Your task to perform on an android device: Clear the cart on target.com. Search for macbook pro 15 inch on target.com, select the first entry, add it to the cart, then select checkout. Image 0: 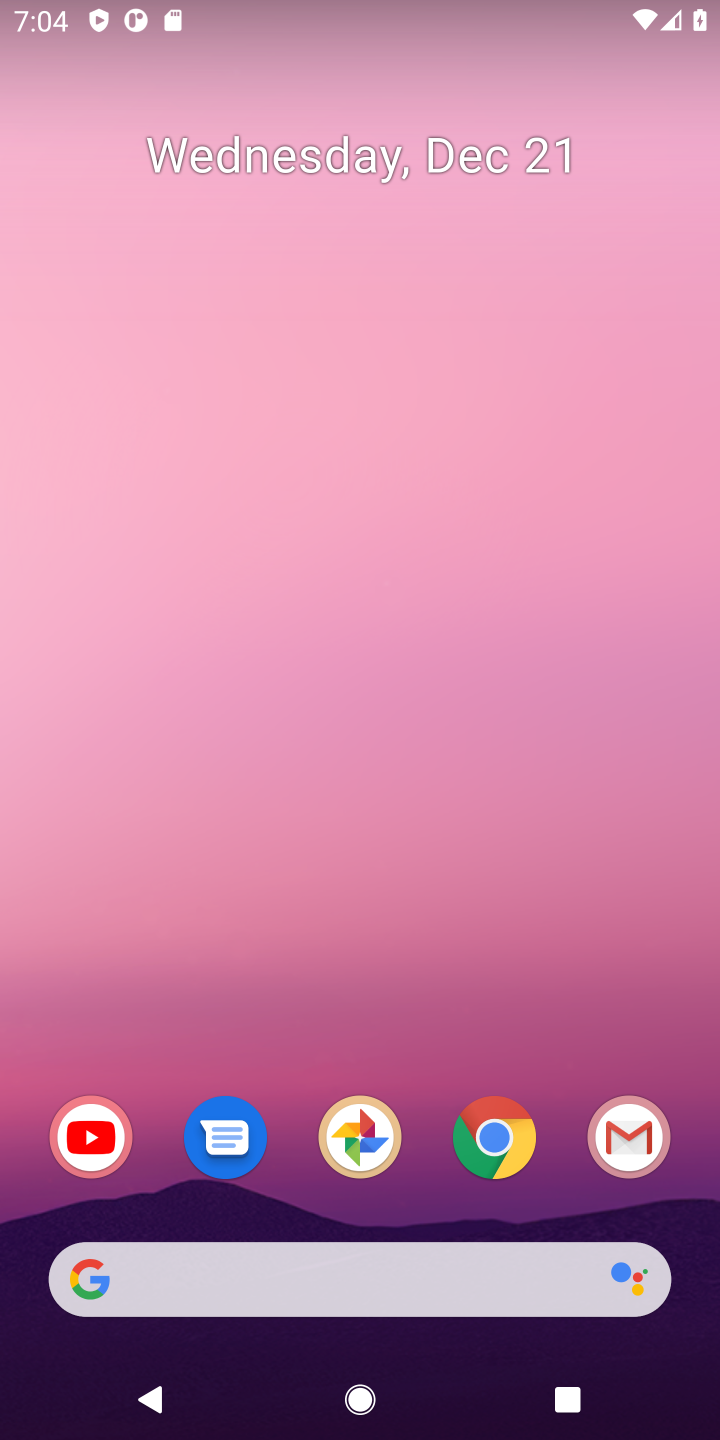
Step 0: click (505, 1152)
Your task to perform on an android device: Clear the cart on target.com. Search for macbook pro 15 inch on target.com, select the first entry, add it to the cart, then select checkout. Image 1: 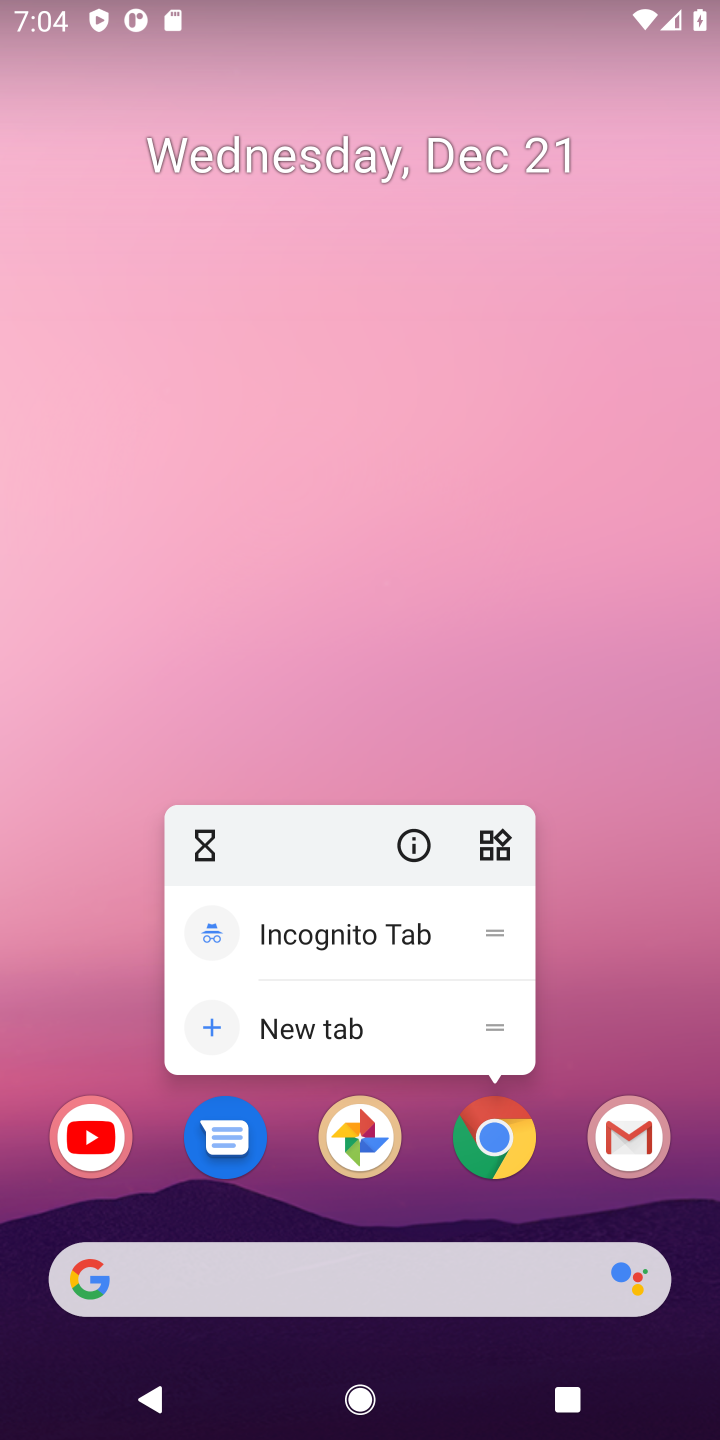
Step 1: click (496, 1144)
Your task to perform on an android device: Clear the cart on target.com. Search for macbook pro 15 inch on target.com, select the first entry, add it to the cart, then select checkout. Image 2: 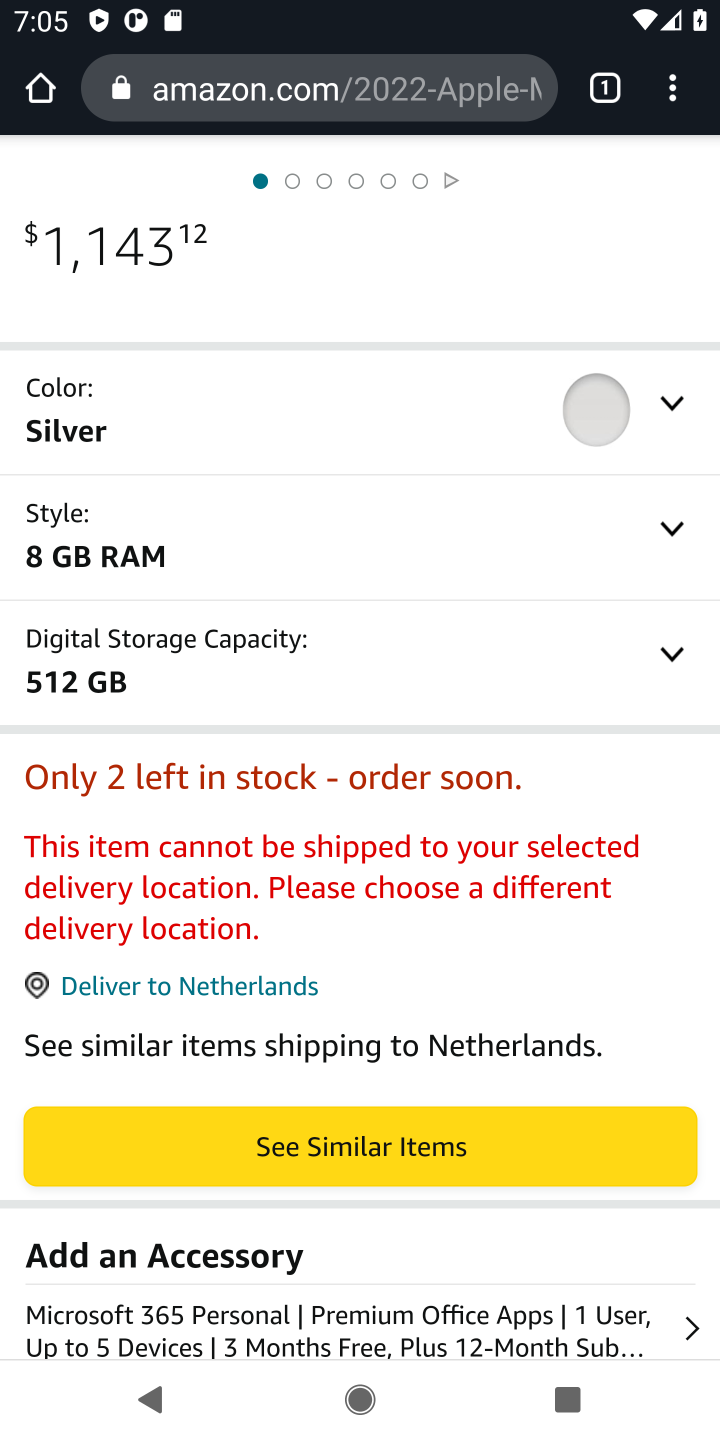
Step 2: click (235, 101)
Your task to perform on an android device: Clear the cart on target.com. Search for macbook pro 15 inch on target.com, select the first entry, add it to the cart, then select checkout. Image 3: 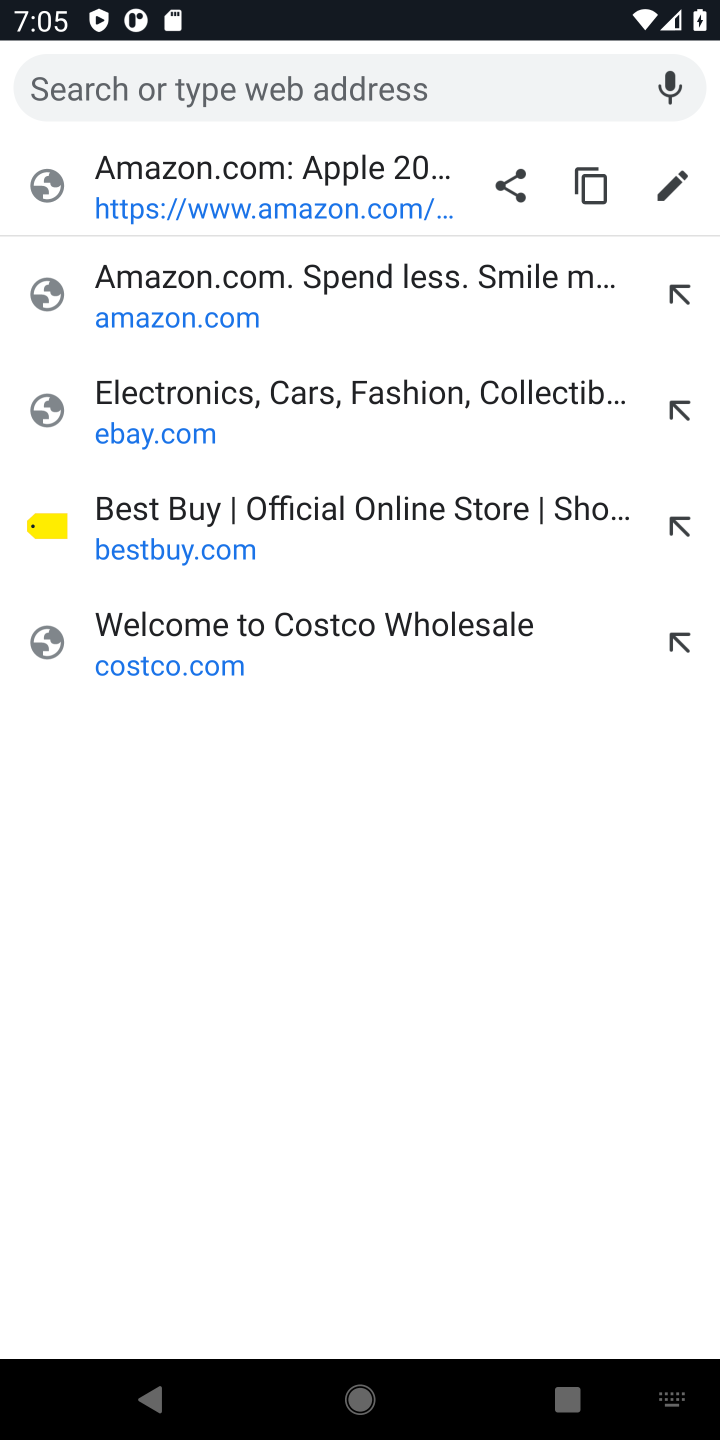
Step 3: type "target.com"
Your task to perform on an android device: Clear the cart on target.com. Search for macbook pro 15 inch on target.com, select the first entry, add it to the cart, then select checkout. Image 4: 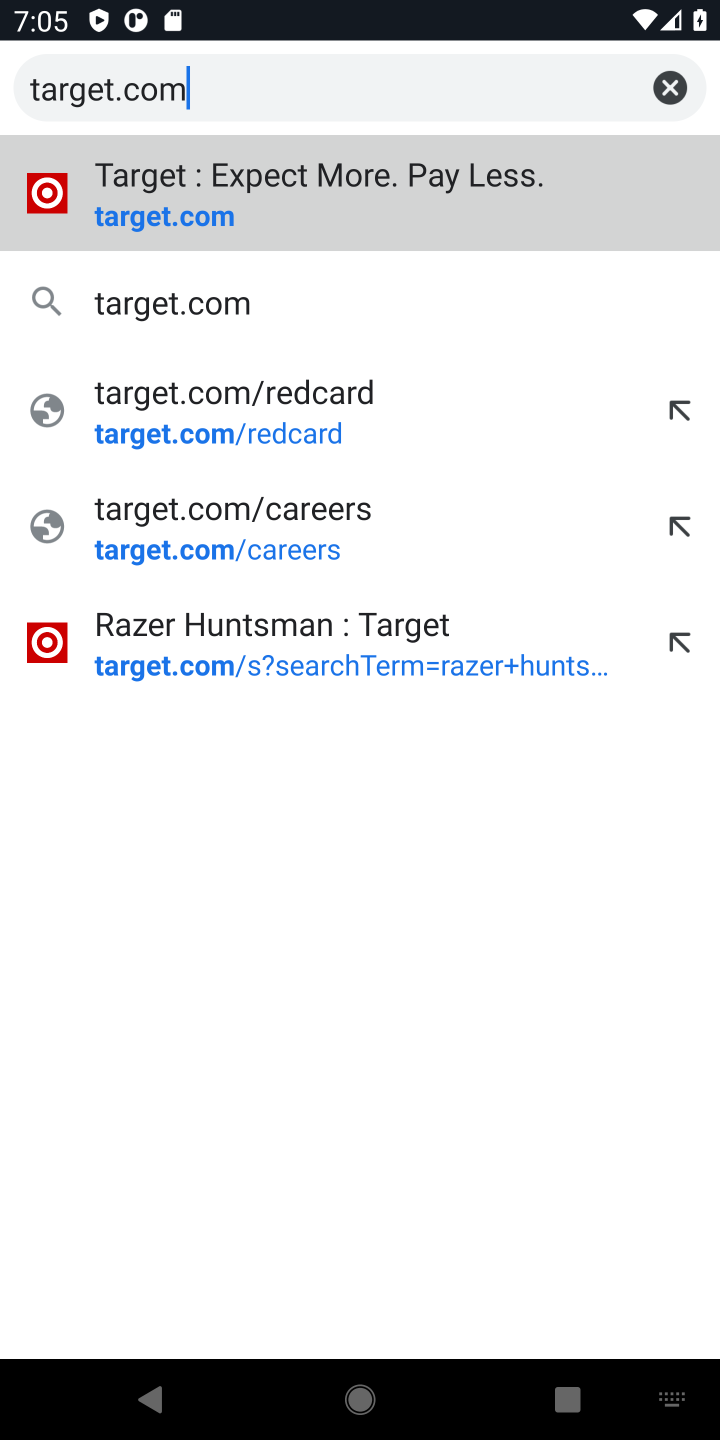
Step 4: click (142, 195)
Your task to perform on an android device: Clear the cart on target.com. Search for macbook pro 15 inch on target.com, select the first entry, add it to the cart, then select checkout. Image 5: 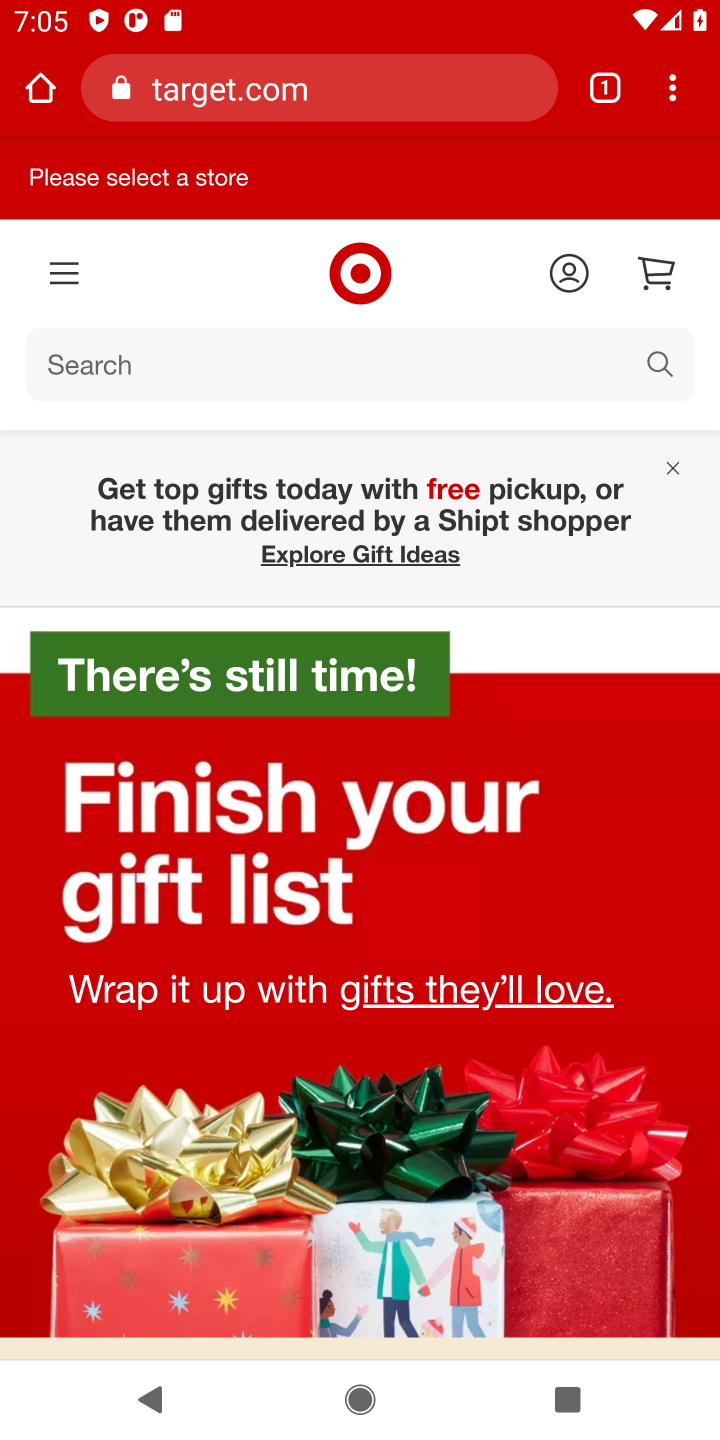
Step 5: click (658, 271)
Your task to perform on an android device: Clear the cart on target.com. Search for macbook pro 15 inch on target.com, select the first entry, add it to the cart, then select checkout. Image 6: 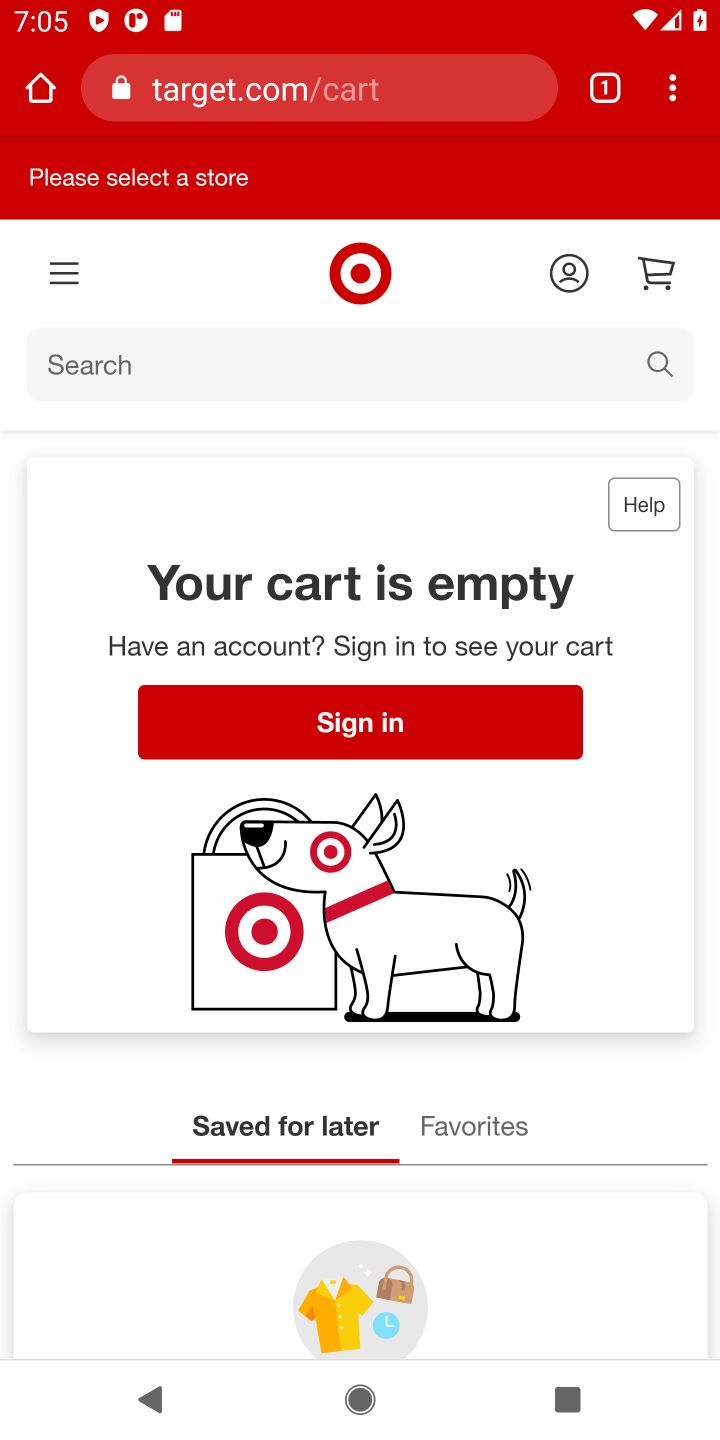
Step 6: click (72, 376)
Your task to perform on an android device: Clear the cart on target.com. Search for macbook pro 15 inch on target.com, select the first entry, add it to the cart, then select checkout. Image 7: 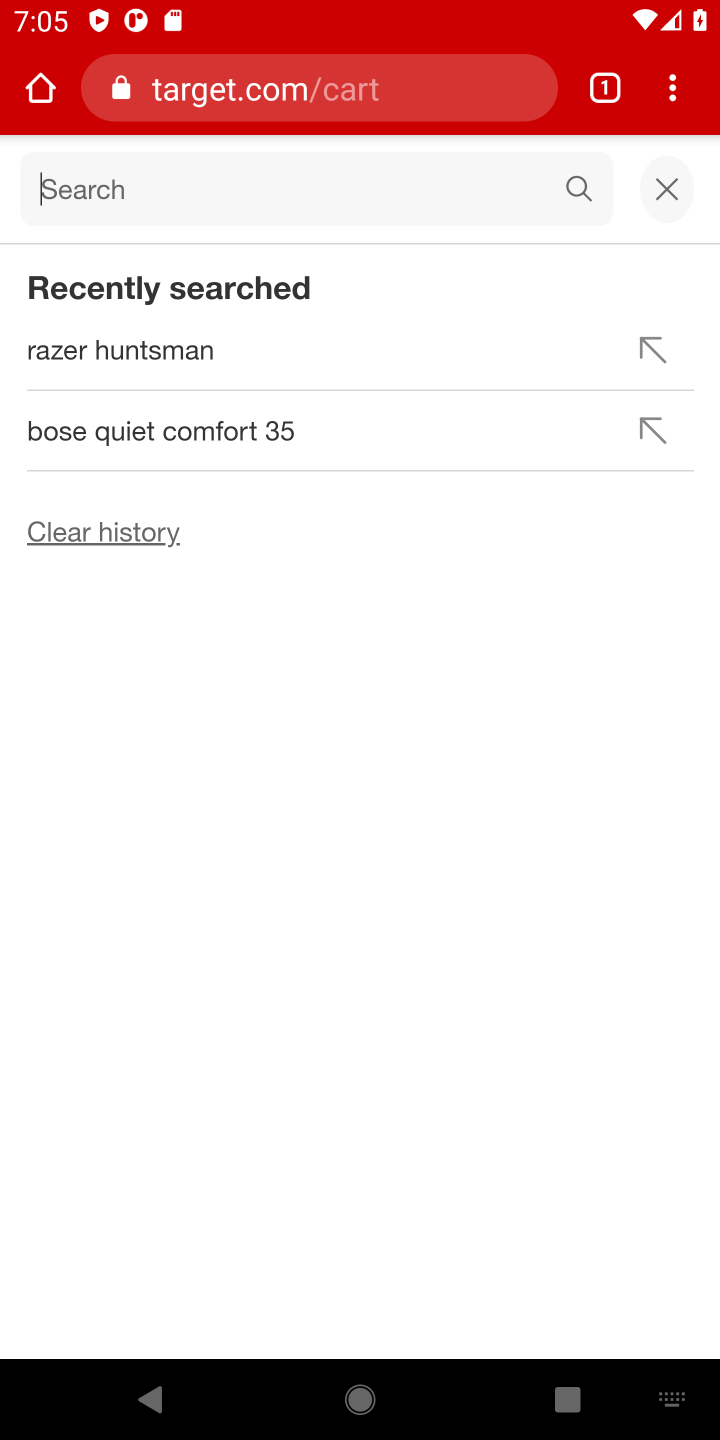
Step 7: type "macbook pro 15 inch"
Your task to perform on an android device: Clear the cart on target.com. Search for macbook pro 15 inch on target.com, select the first entry, add it to the cart, then select checkout. Image 8: 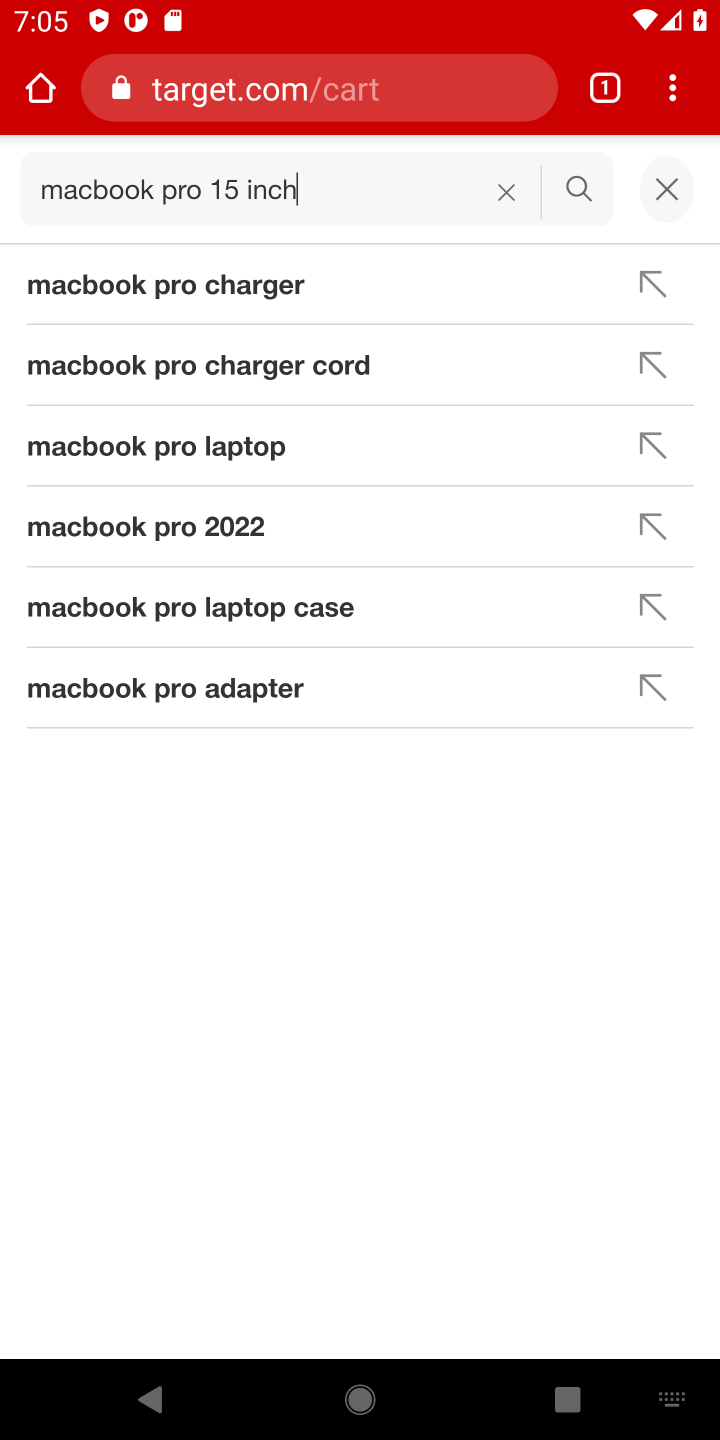
Step 8: click (577, 191)
Your task to perform on an android device: Clear the cart on target.com. Search for macbook pro 15 inch on target.com, select the first entry, add it to the cart, then select checkout. Image 9: 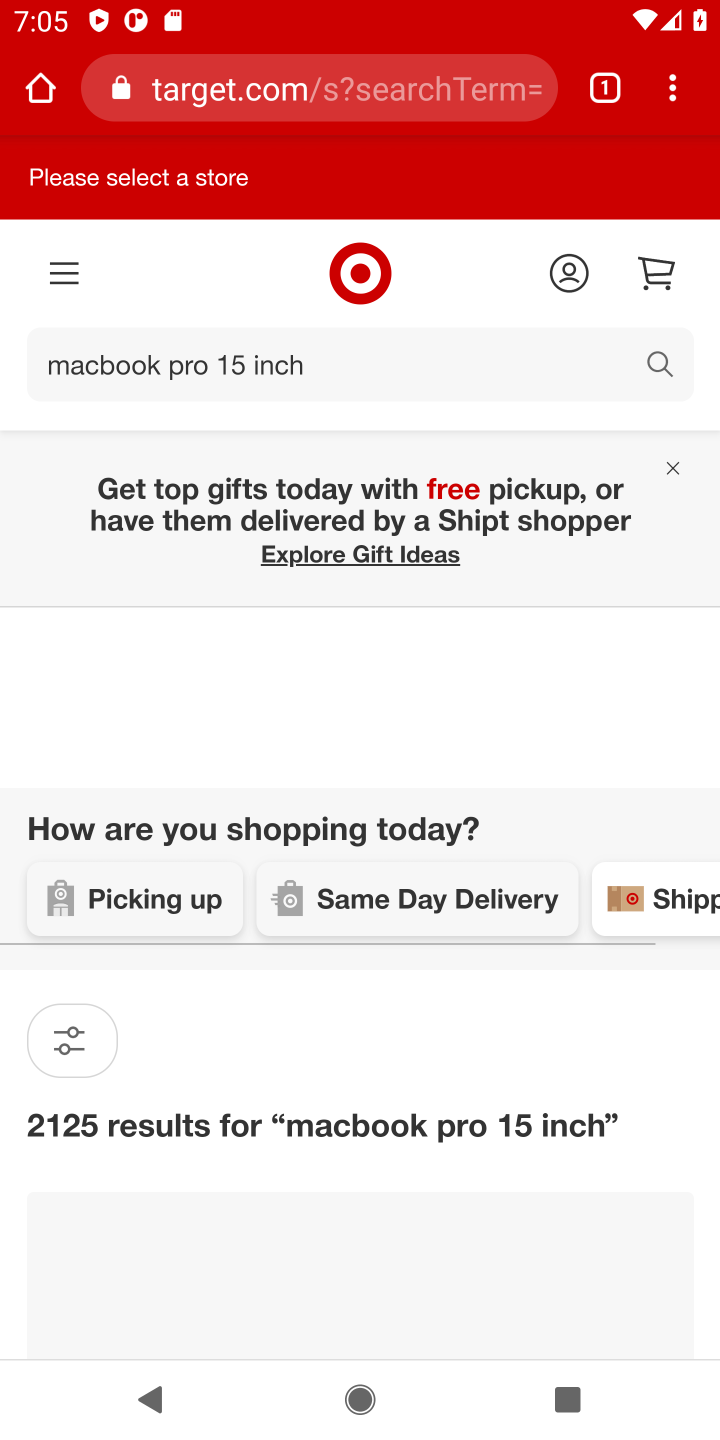
Step 9: drag from (304, 1028) to (293, 511)
Your task to perform on an android device: Clear the cart on target.com. Search for macbook pro 15 inch on target.com, select the first entry, add it to the cart, then select checkout. Image 10: 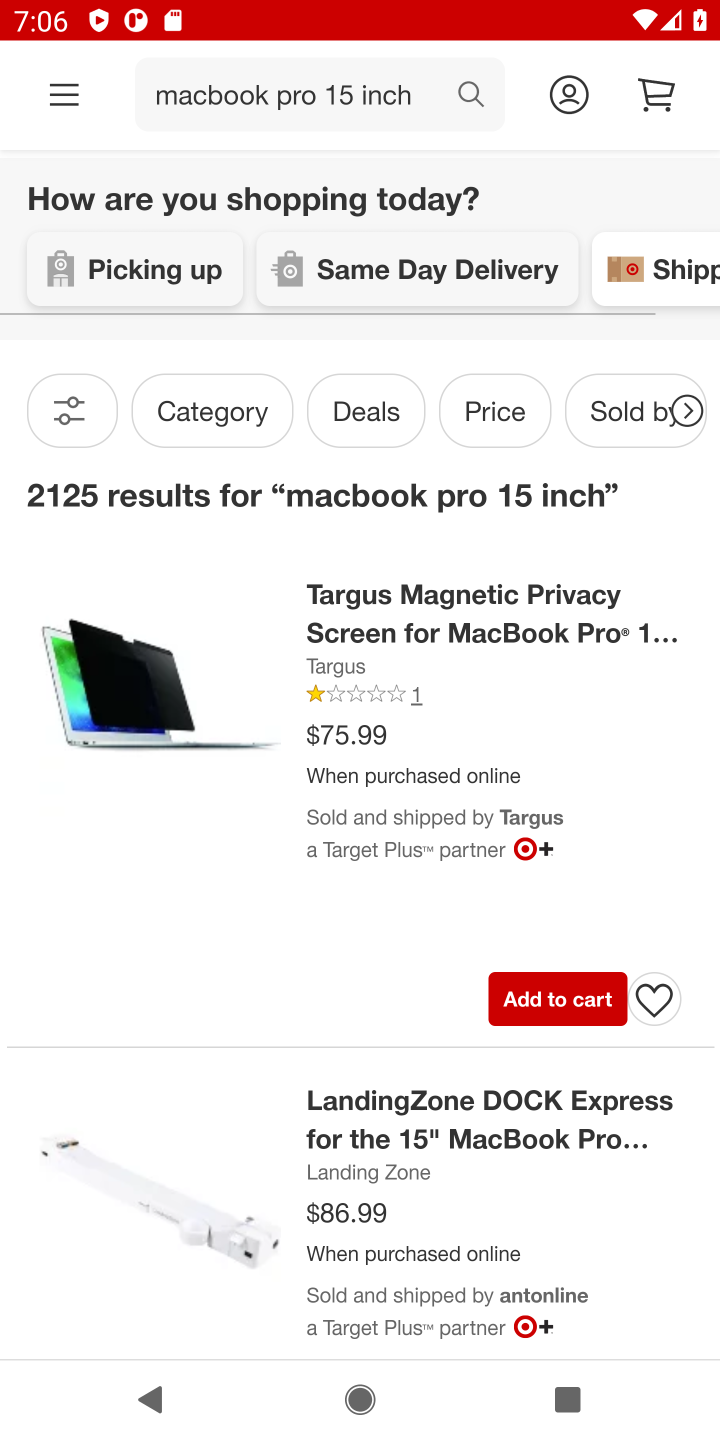
Step 10: click (373, 627)
Your task to perform on an android device: Clear the cart on target.com. Search for macbook pro 15 inch on target.com, select the first entry, add it to the cart, then select checkout. Image 11: 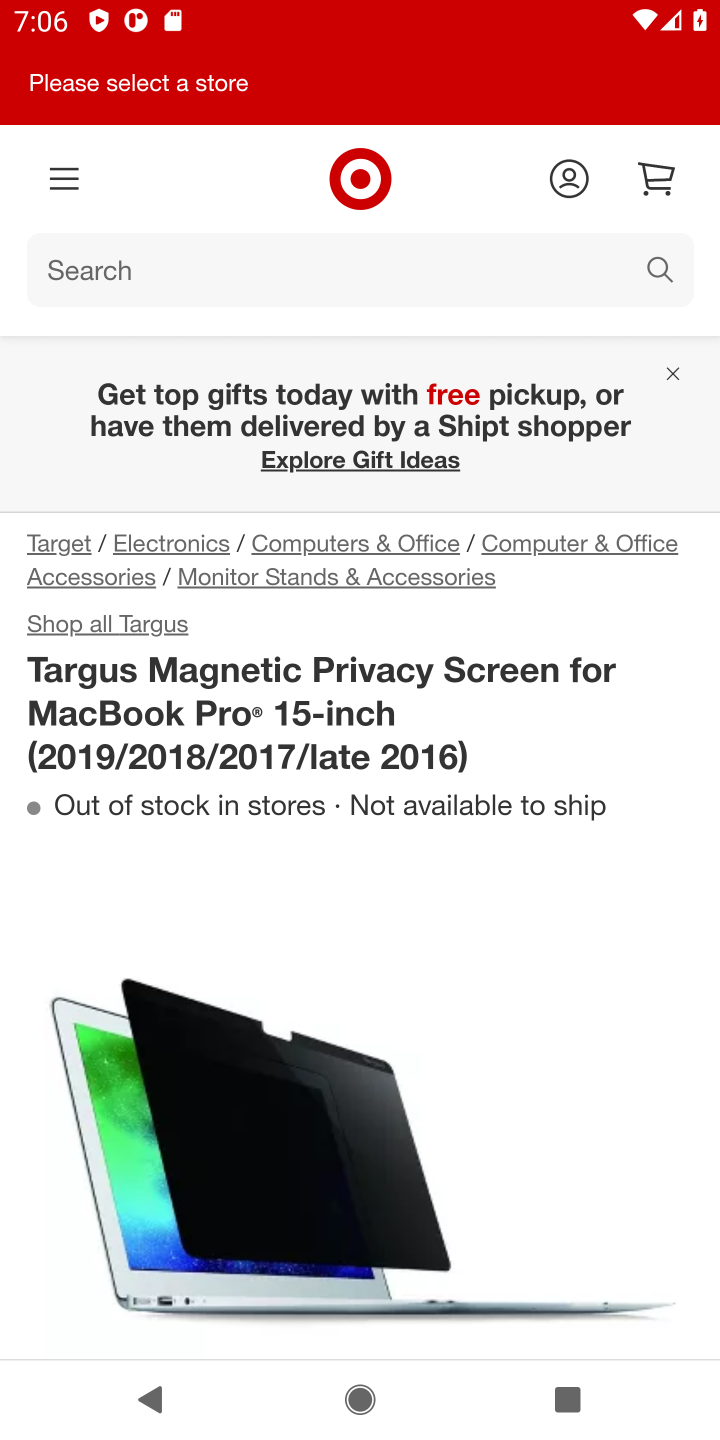
Step 11: drag from (289, 922) to (318, 374)
Your task to perform on an android device: Clear the cart on target.com. Search for macbook pro 15 inch on target.com, select the first entry, add it to the cart, then select checkout. Image 12: 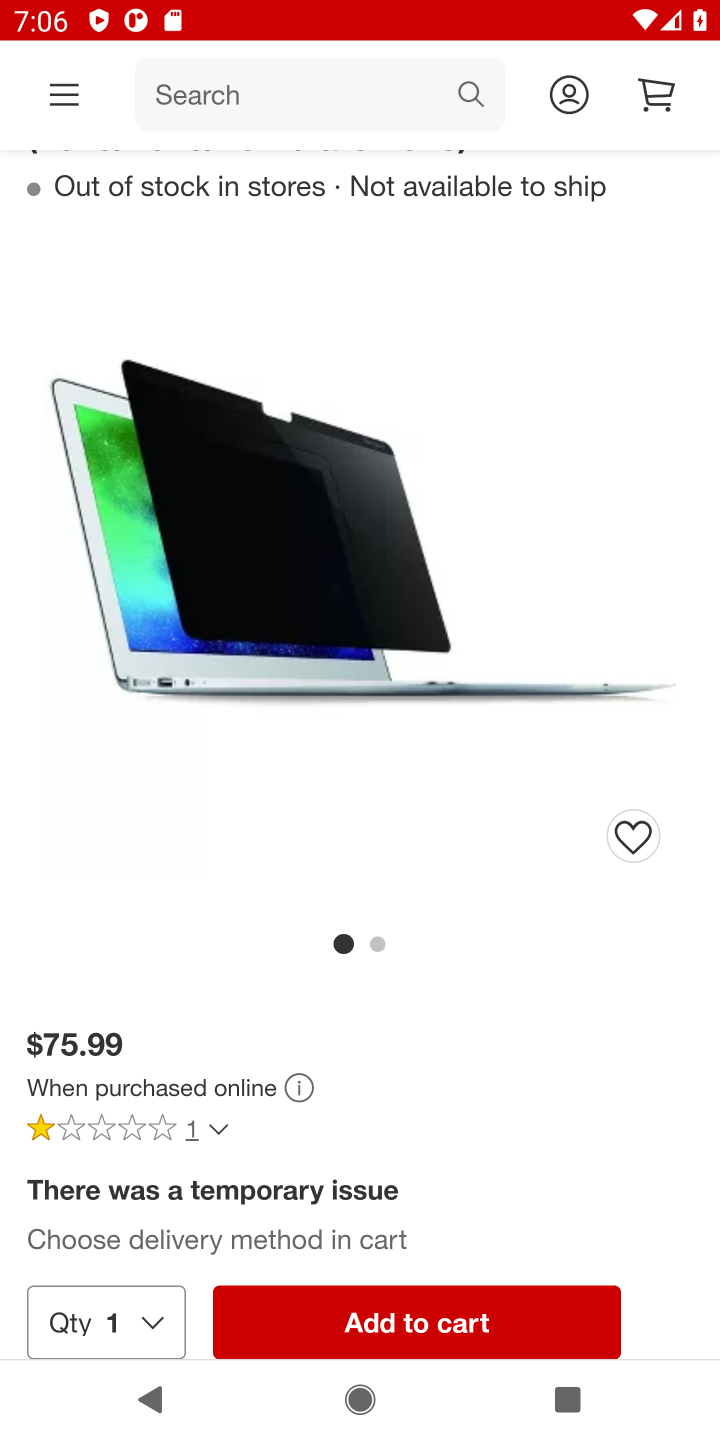
Step 12: click (440, 1333)
Your task to perform on an android device: Clear the cart on target.com. Search for macbook pro 15 inch on target.com, select the first entry, add it to the cart, then select checkout. Image 13: 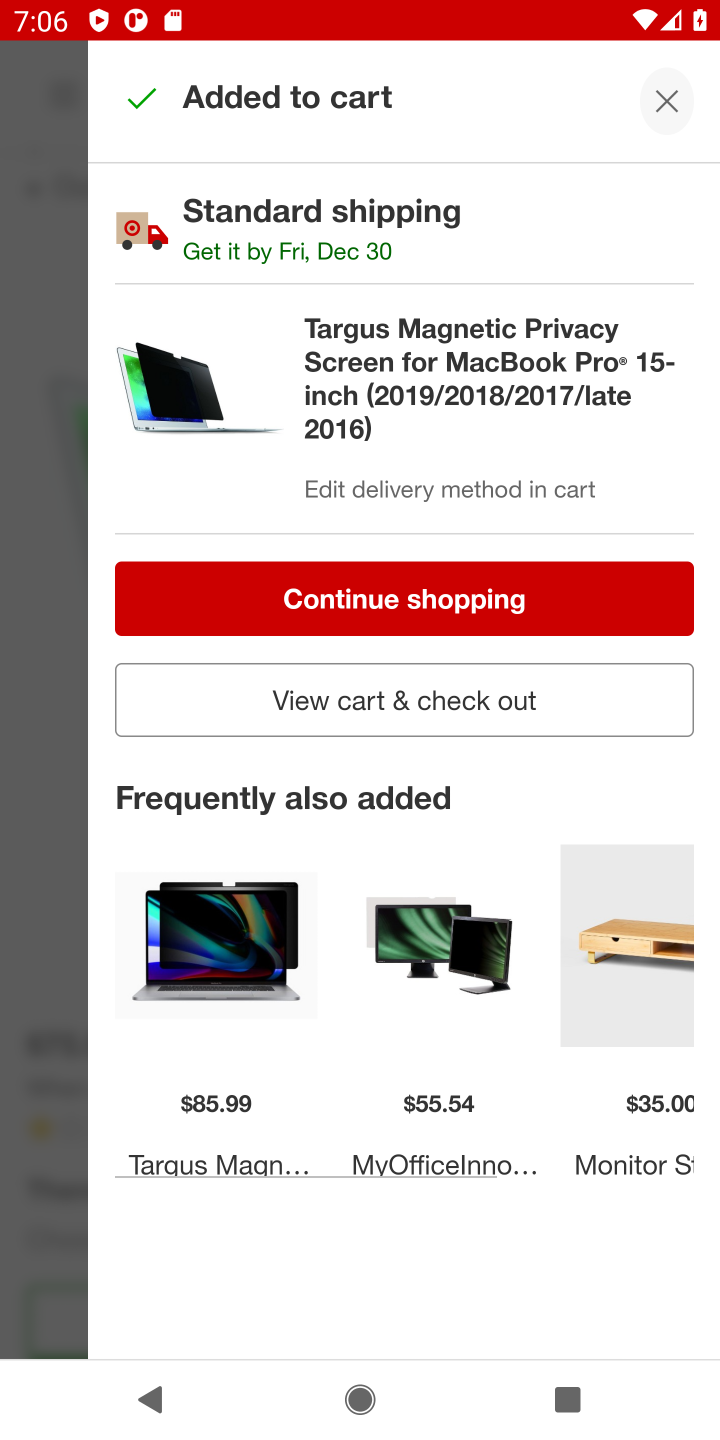
Step 13: click (395, 719)
Your task to perform on an android device: Clear the cart on target.com. Search for macbook pro 15 inch on target.com, select the first entry, add it to the cart, then select checkout. Image 14: 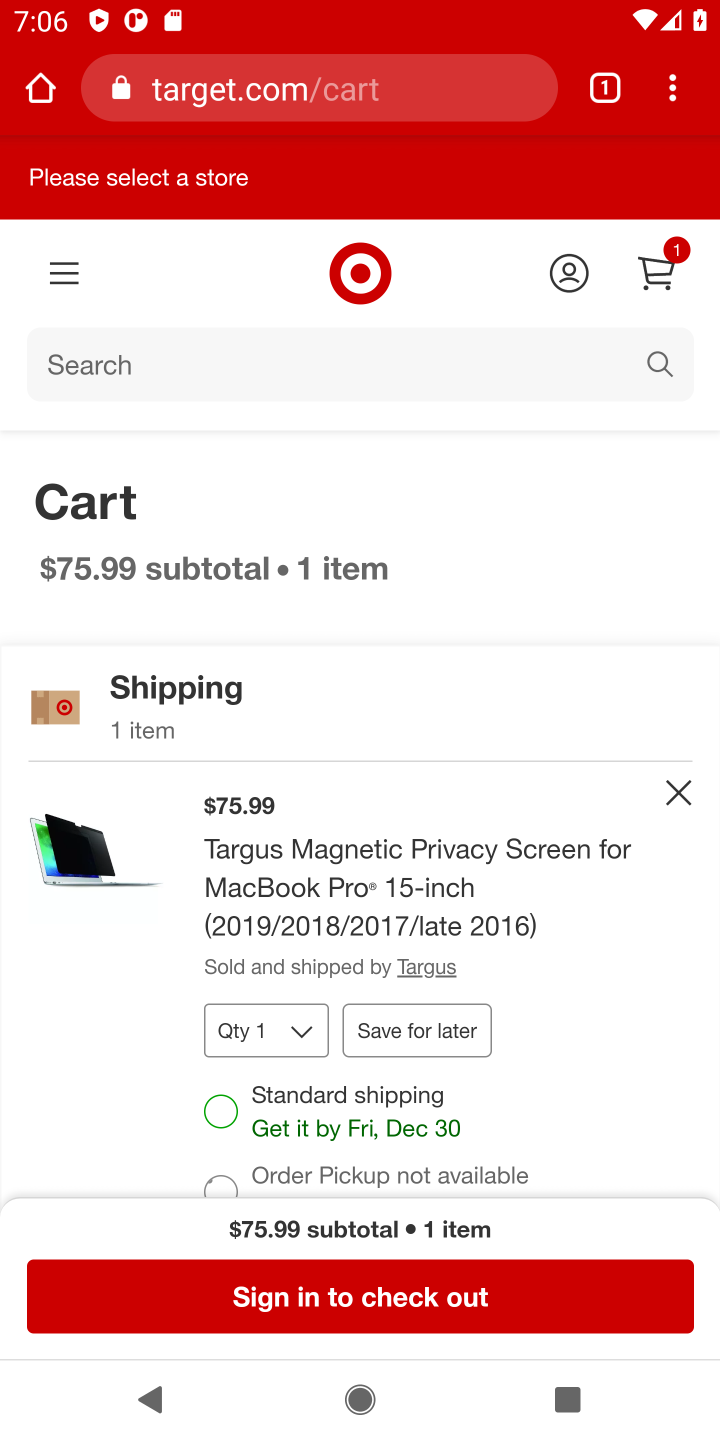
Step 14: click (385, 1299)
Your task to perform on an android device: Clear the cart on target.com. Search for macbook pro 15 inch on target.com, select the first entry, add it to the cart, then select checkout. Image 15: 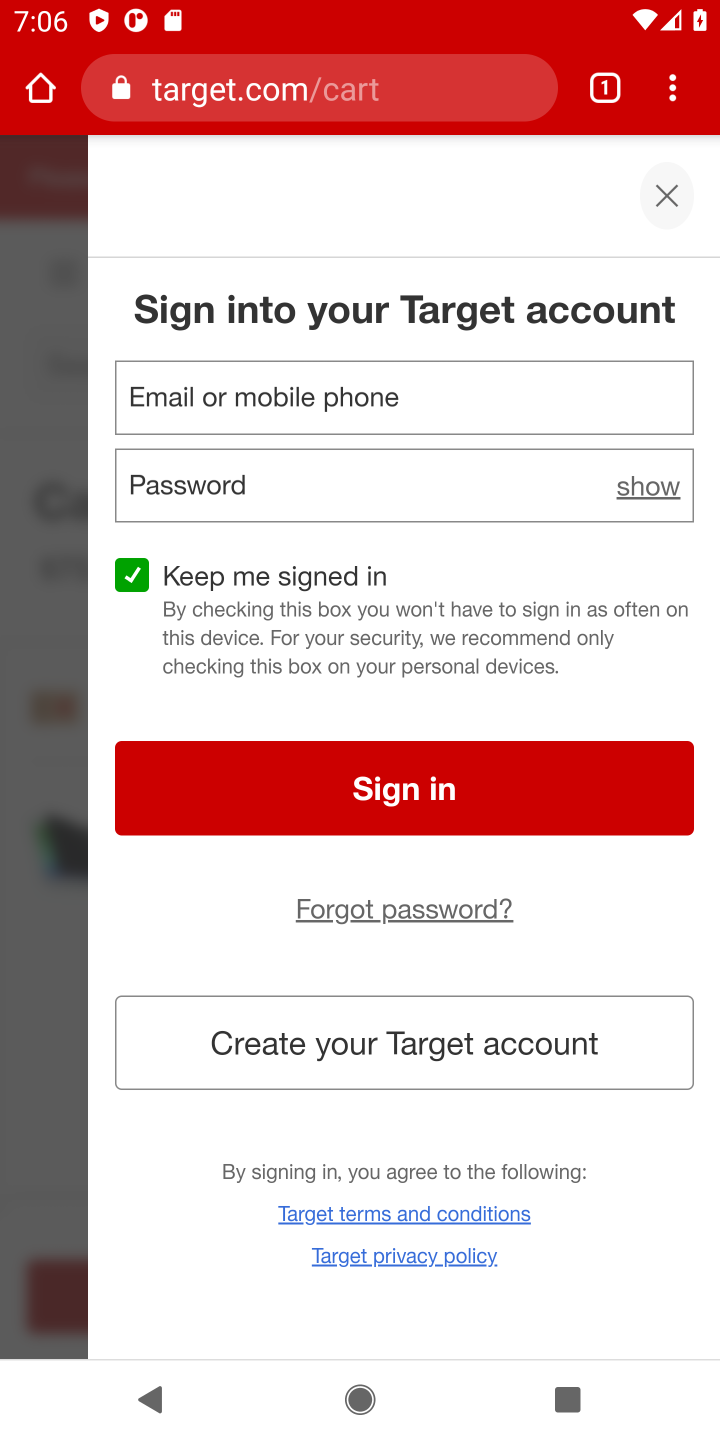
Step 15: task complete